Your task to perform on an android device: See recent photos Image 0: 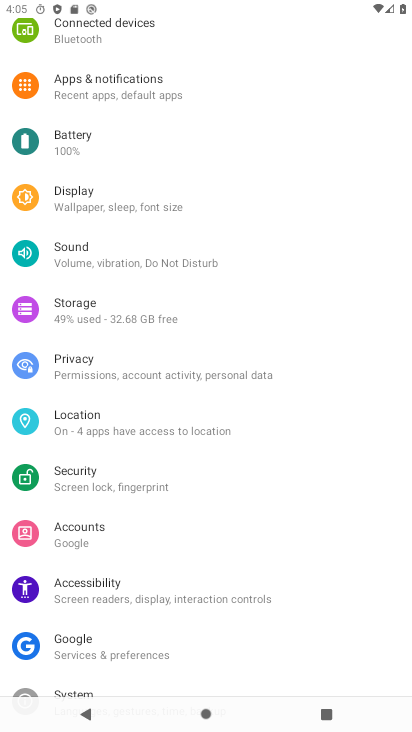
Step 0: press home button
Your task to perform on an android device: See recent photos Image 1: 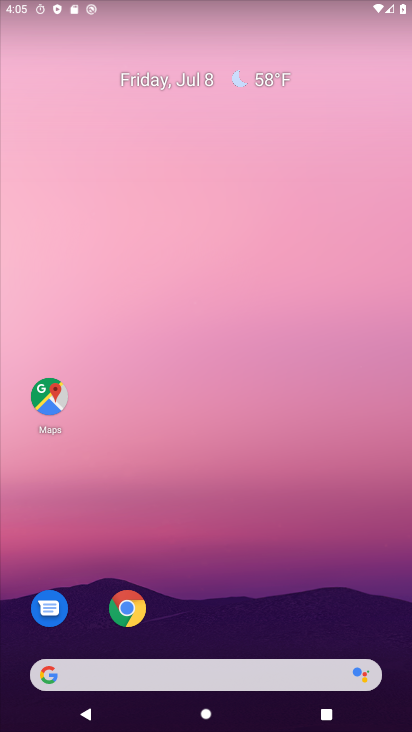
Step 1: drag from (246, 583) to (282, 237)
Your task to perform on an android device: See recent photos Image 2: 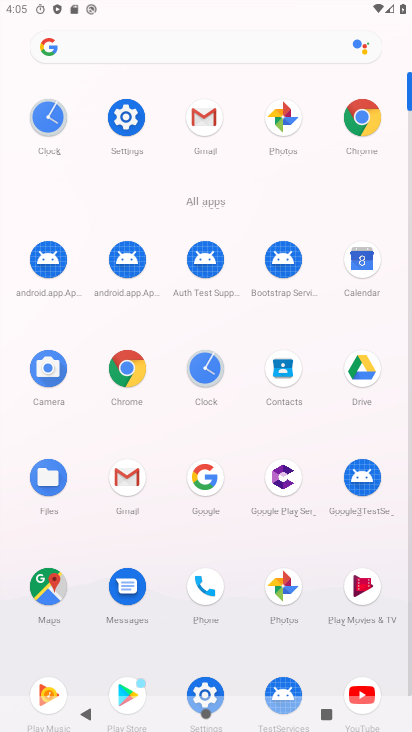
Step 2: click (284, 114)
Your task to perform on an android device: See recent photos Image 3: 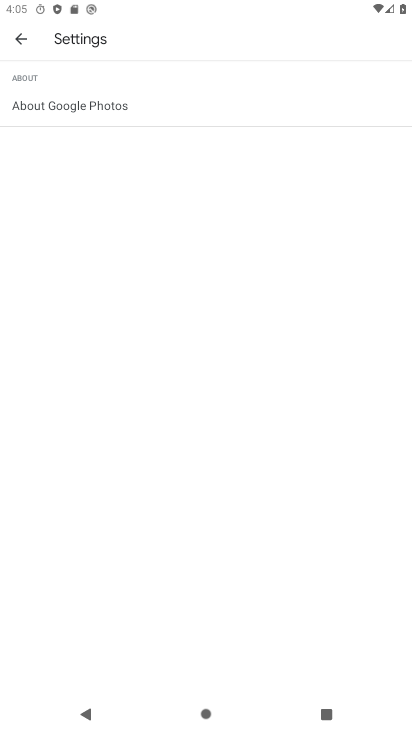
Step 3: click (24, 35)
Your task to perform on an android device: See recent photos Image 4: 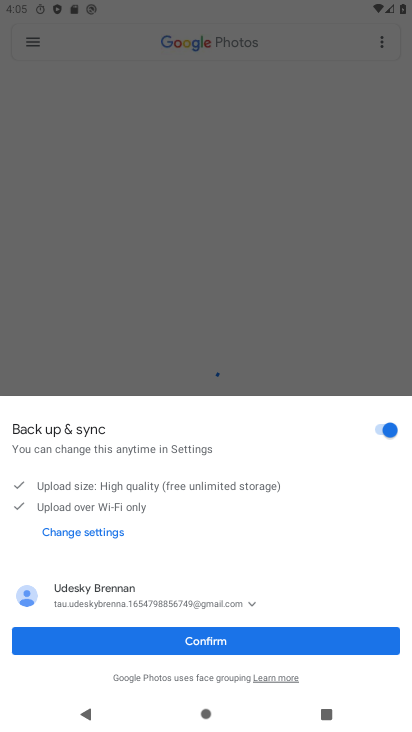
Step 4: click (185, 641)
Your task to perform on an android device: See recent photos Image 5: 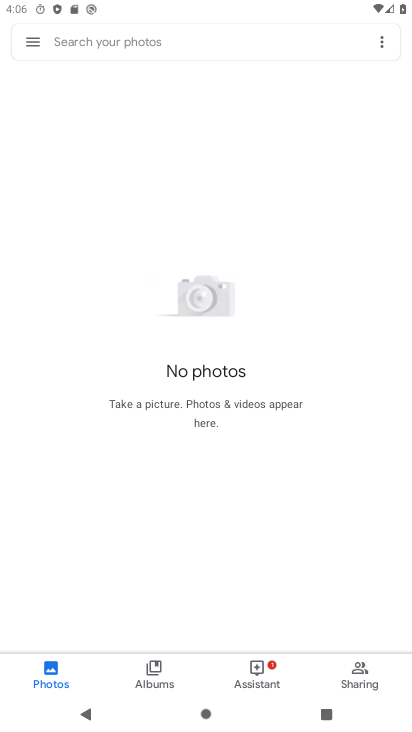
Step 5: task complete